Your task to perform on an android device: Go to internet settings Image 0: 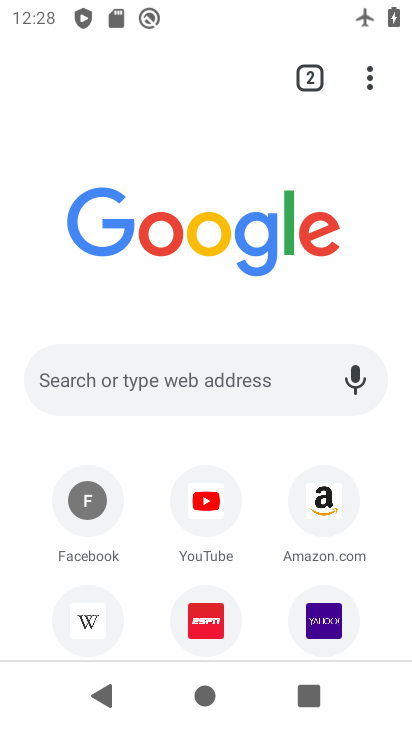
Step 0: press home button
Your task to perform on an android device: Go to internet settings Image 1: 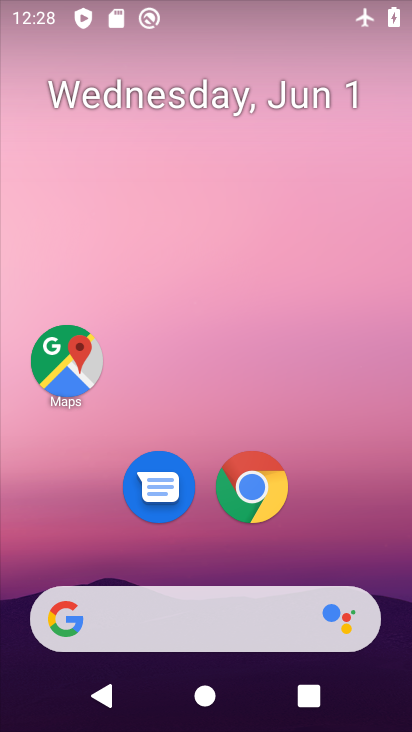
Step 1: drag from (309, 488) to (310, 212)
Your task to perform on an android device: Go to internet settings Image 2: 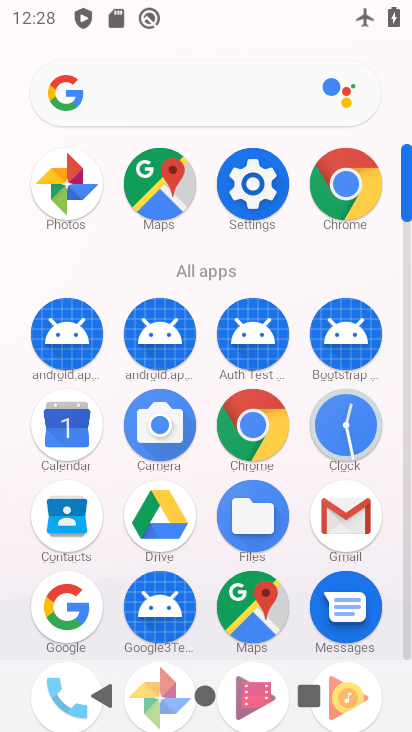
Step 2: click (241, 189)
Your task to perform on an android device: Go to internet settings Image 3: 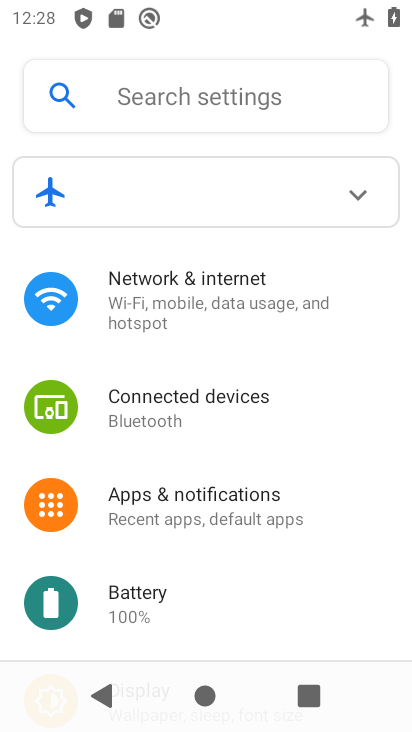
Step 3: click (124, 286)
Your task to perform on an android device: Go to internet settings Image 4: 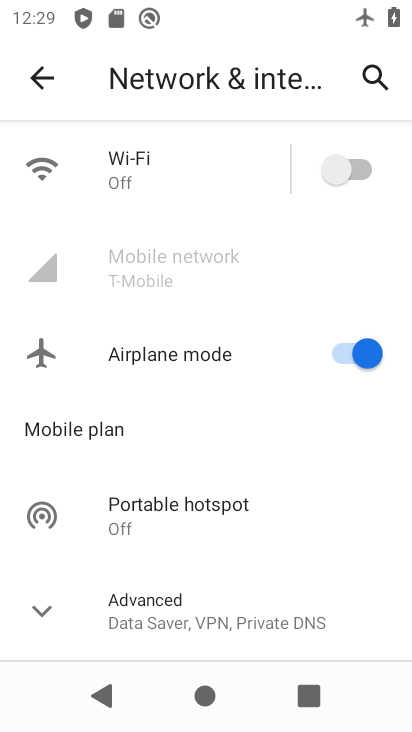
Step 4: task complete